Your task to perform on an android device: set the timer Image 0: 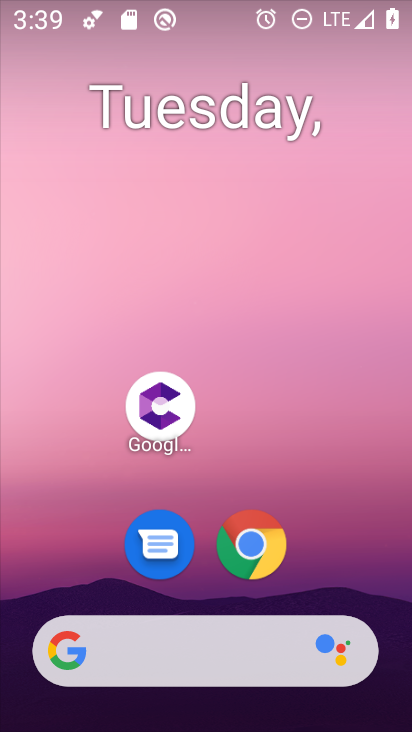
Step 0: drag from (386, 569) to (369, 122)
Your task to perform on an android device: set the timer Image 1: 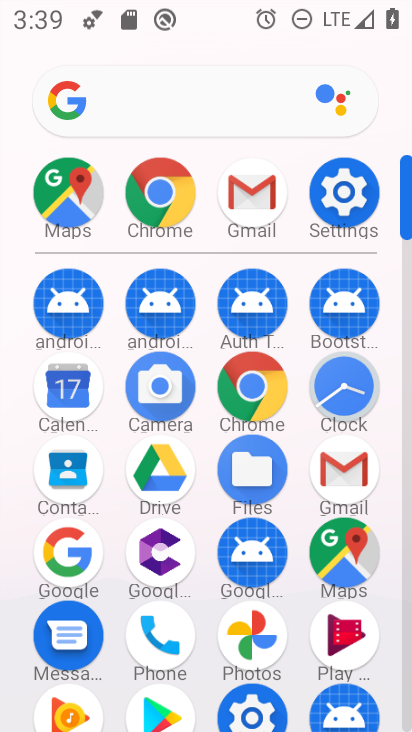
Step 1: click (344, 398)
Your task to perform on an android device: set the timer Image 2: 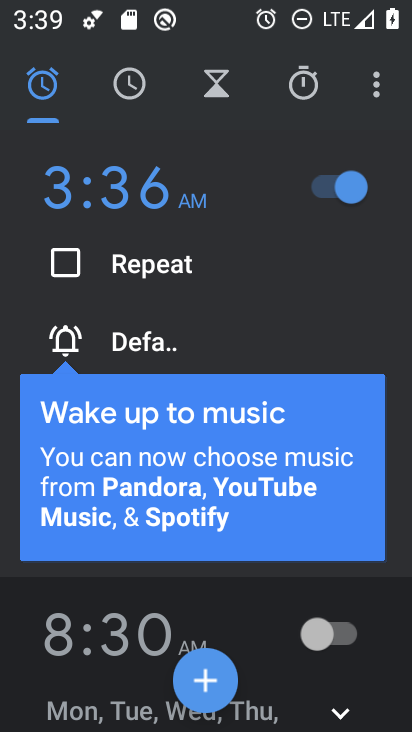
Step 2: click (212, 74)
Your task to perform on an android device: set the timer Image 3: 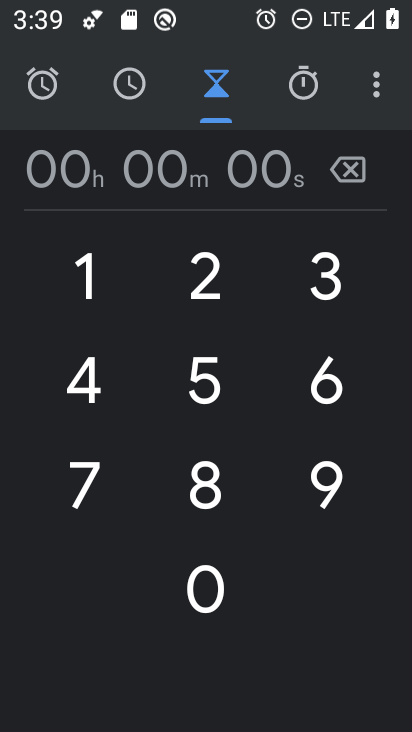
Step 3: click (209, 384)
Your task to perform on an android device: set the timer Image 4: 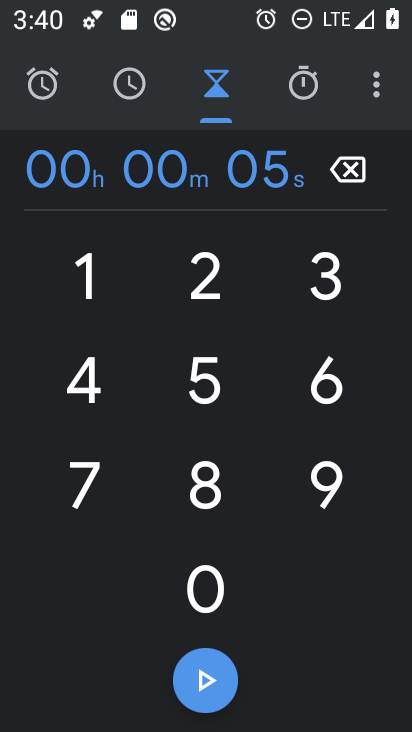
Step 4: task complete